Your task to perform on an android device: check battery use Image 0: 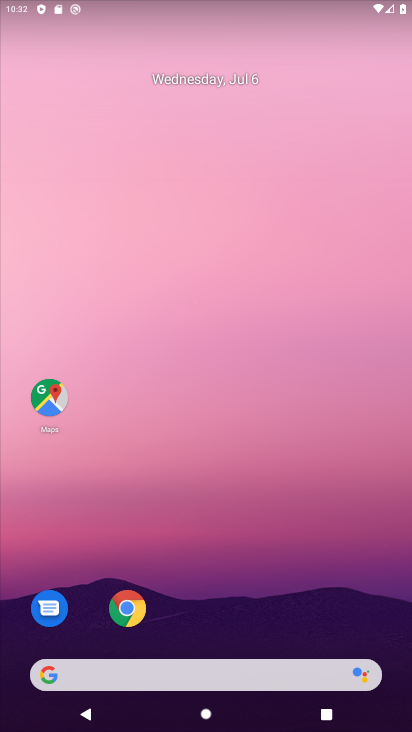
Step 0: drag from (265, 580) to (263, 0)
Your task to perform on an android device: check battery use Image 1: 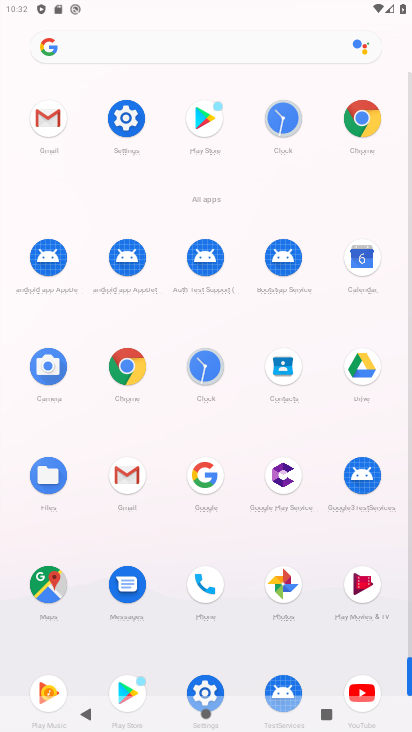
Step 1: click (204, 686)
Your task to perform on an android device: check battery use Image 2: 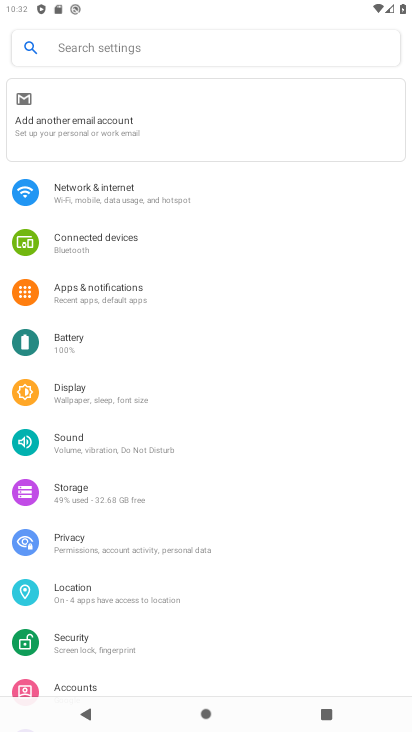
Step 2: click (63, 331)
Your task to perform on an android device: check battery use Image 3: 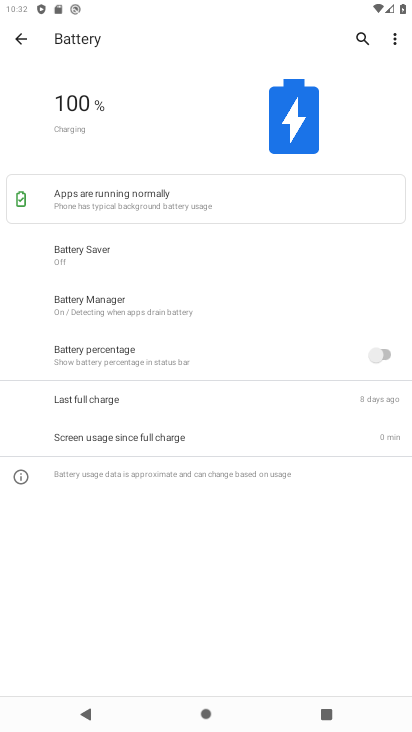
Step 3: task complete